Your task to perform on an android device: Open Yahoo.com Image 0: 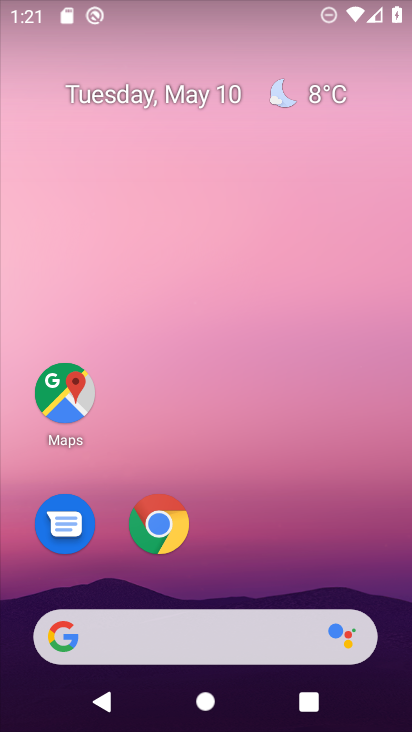
Step 0: click (267, 638)
Your task to perform on an android device: Open Yahoo.com Image 1: 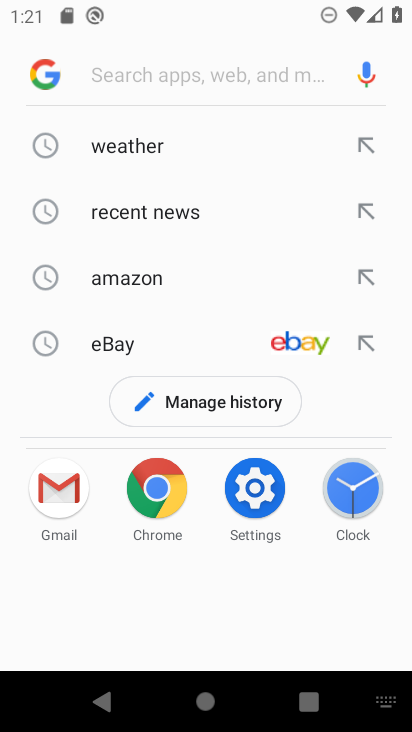
Step 1: type "yahoo.com"
Your task to perform on an android device: Open Yahoo.com Image 2: 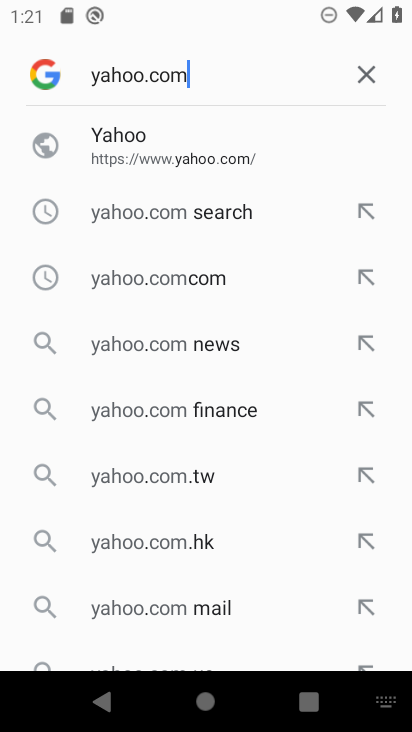
Step 2: click (118, 148)
Your task to perform on an android device: Open Yahoo.com Image 3: 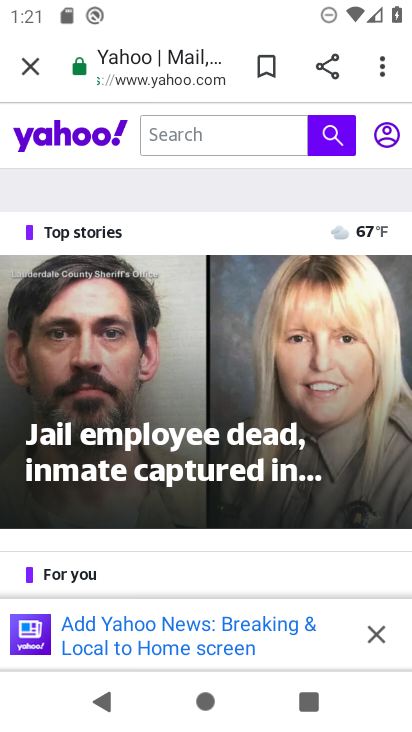
Step 3: task complete